Your task to perform on an android device: Open the Play Movies app and select the watchlist tab. Image 0: 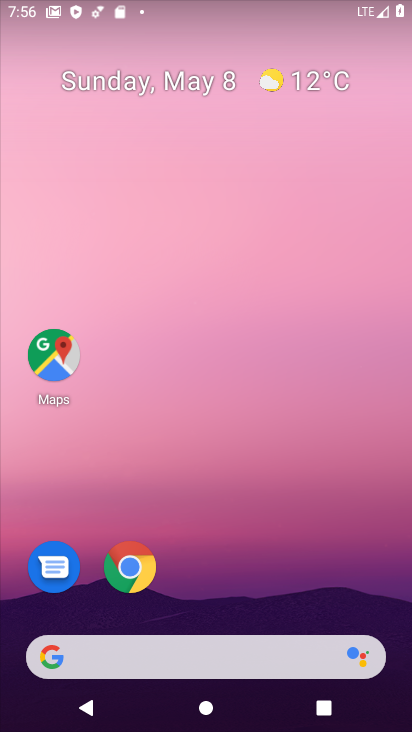
Step 0: drag from (184, 640) to (169, 230)
Your task to perform on an android device: Open the Play Movies app and select the watchlist tab. Image 1: 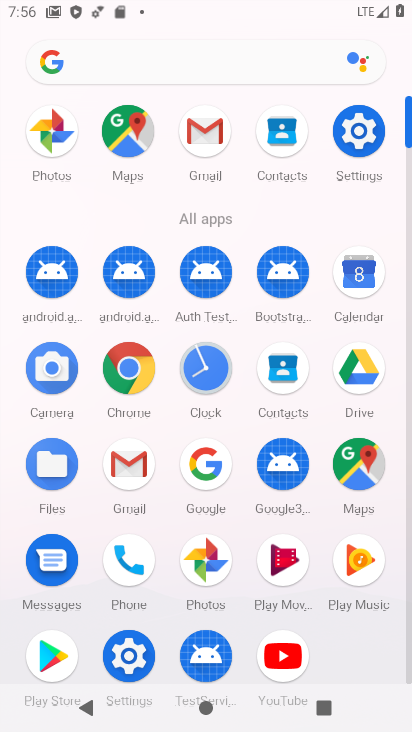
Step 1: click (279, 577)
Your task to perform on an android device: Open the Play Movies app and select the watchlist tab. Image 2: 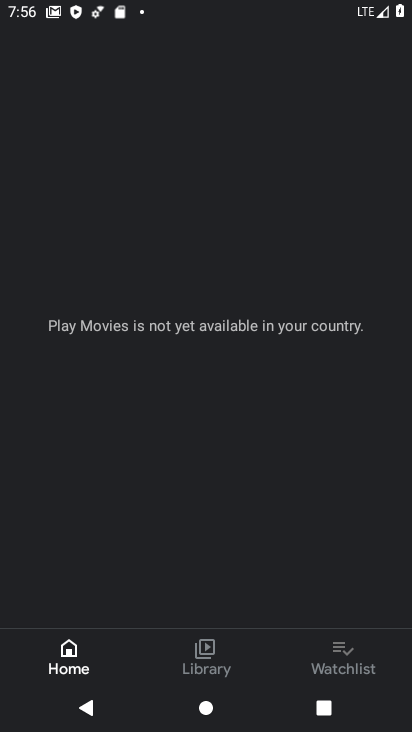
Step 2: click (342, 655)
Your task to perform on an android device: Open the Play Movies app and select the watchlist tab. Image 3: 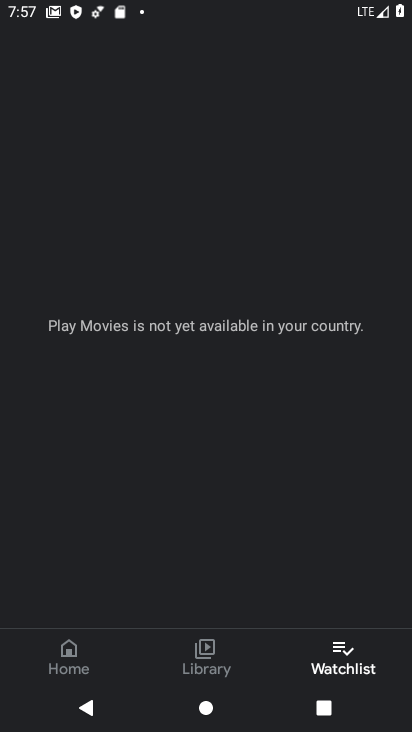
Step 3: task complete